Your task to perform on an android device: How much does a 3 bedroom apartment rent for in Seattle? Image 0: 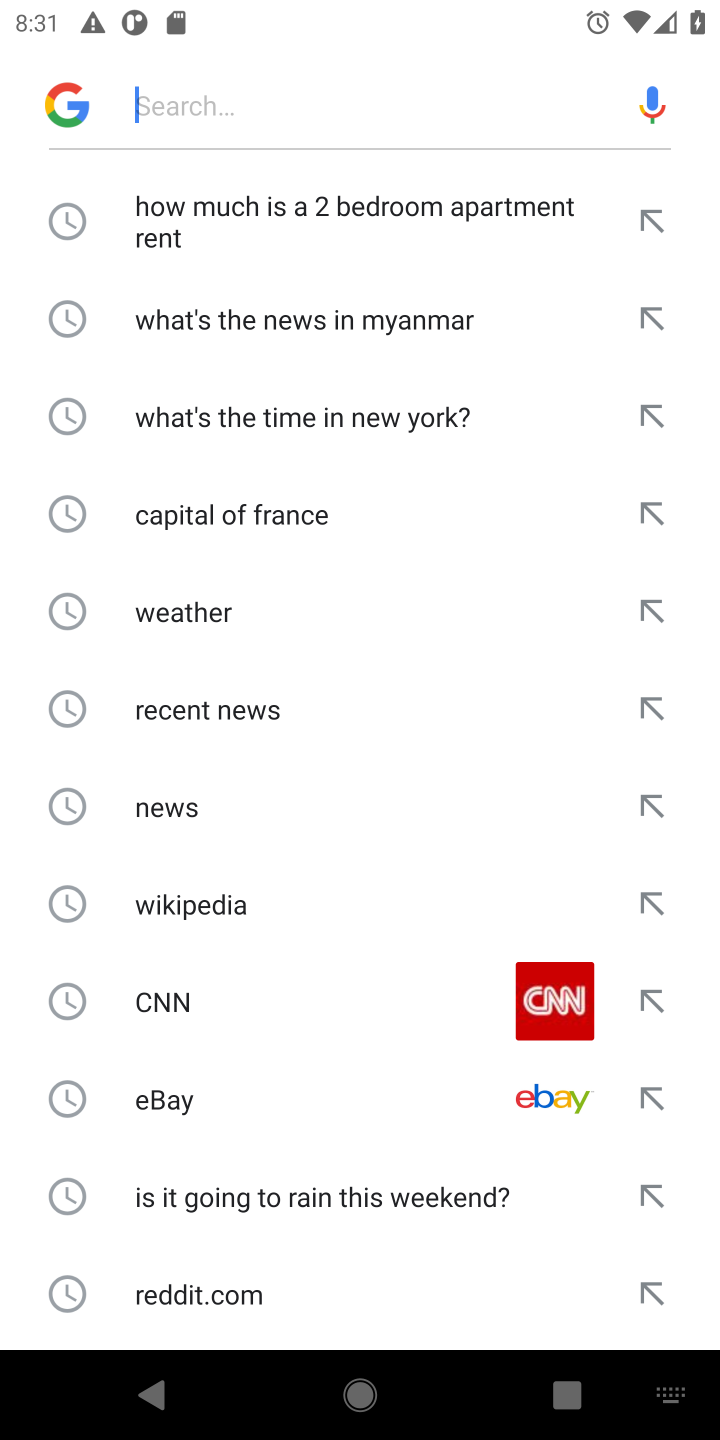
Step 0: type "How much does a 3 bedroom apartment rent for in Seattle?"
Your task to perform on an android device: How much does a 3 bedroom apartment rent for in Seattle? Image 1: 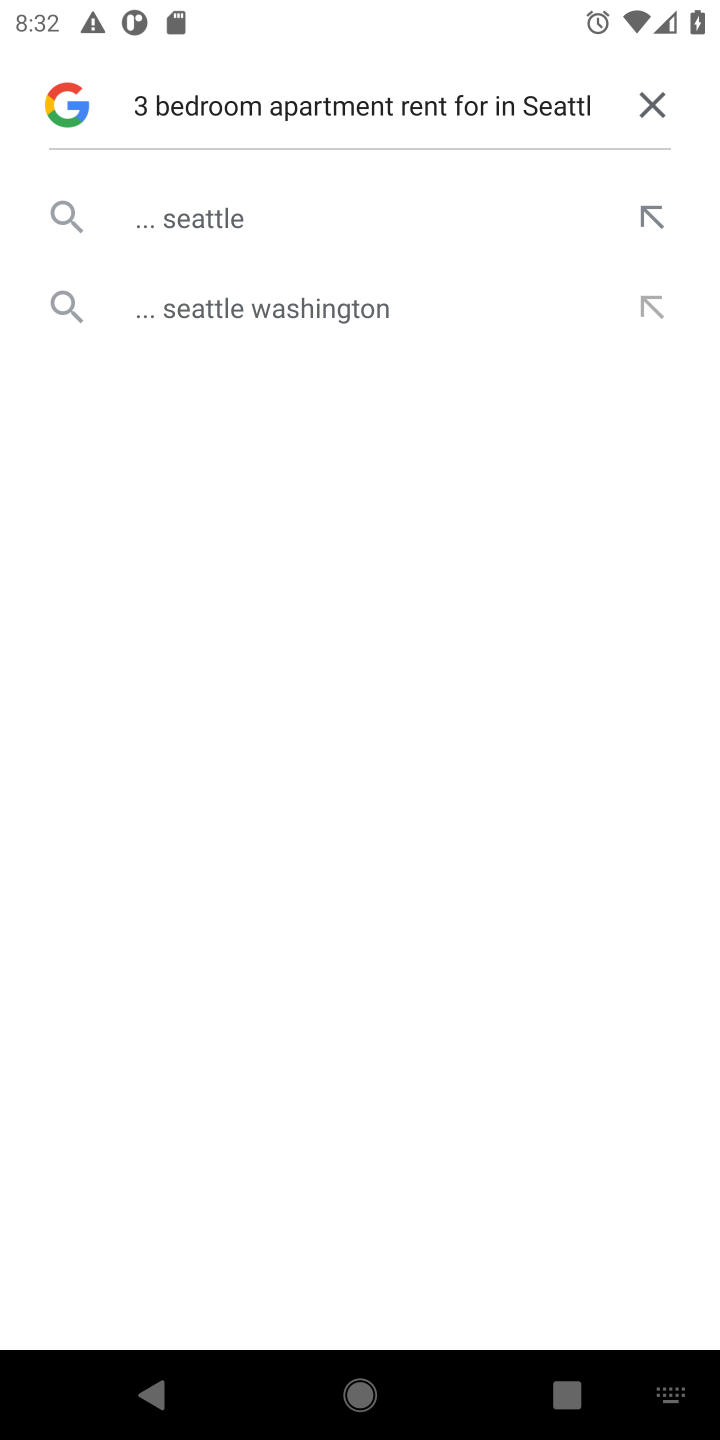
Step 1: click (157, 218)
Your task to perform on an android device: How much does a 3 bedroom apartment rent for in Seattle? Image 2: 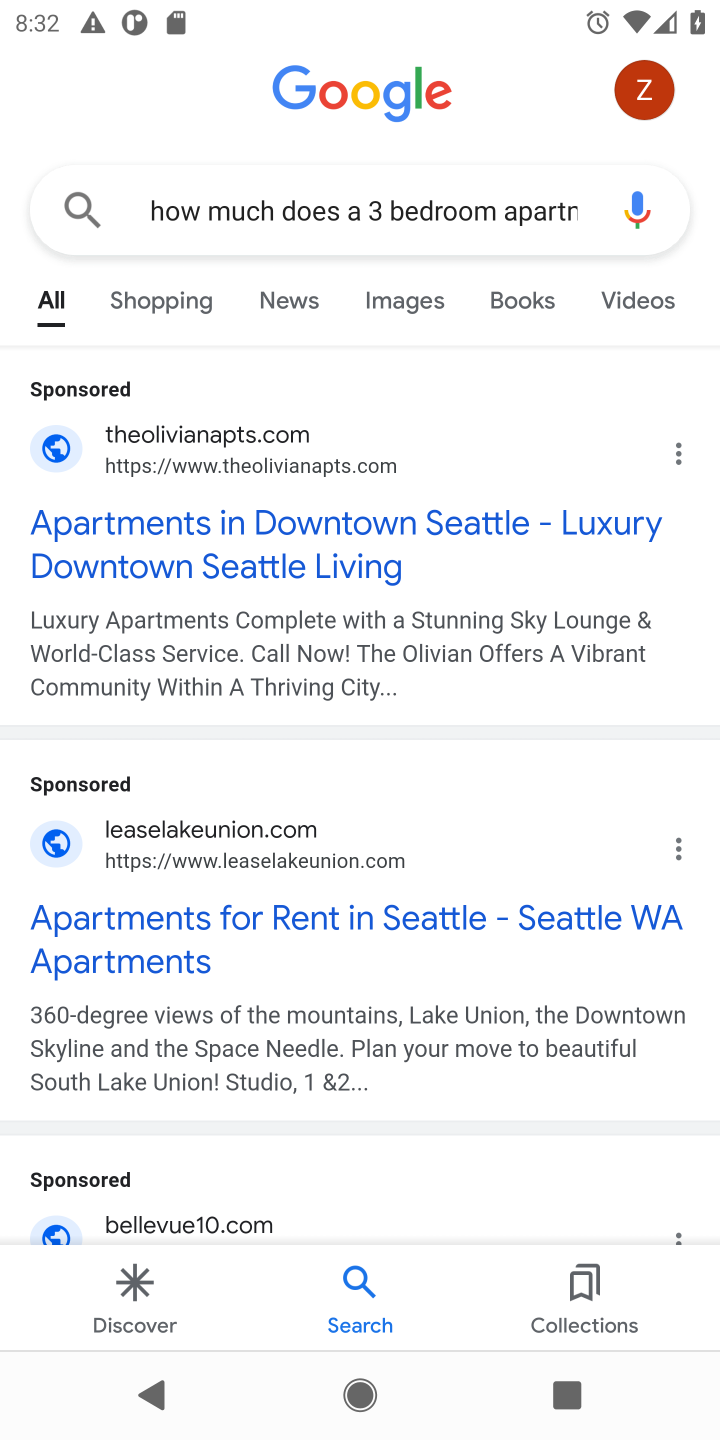
Step 2: click (454, 323)
Your task to perform on an android device: How much does a 3 bedroom apartment rent for in Seattle? Image 3: 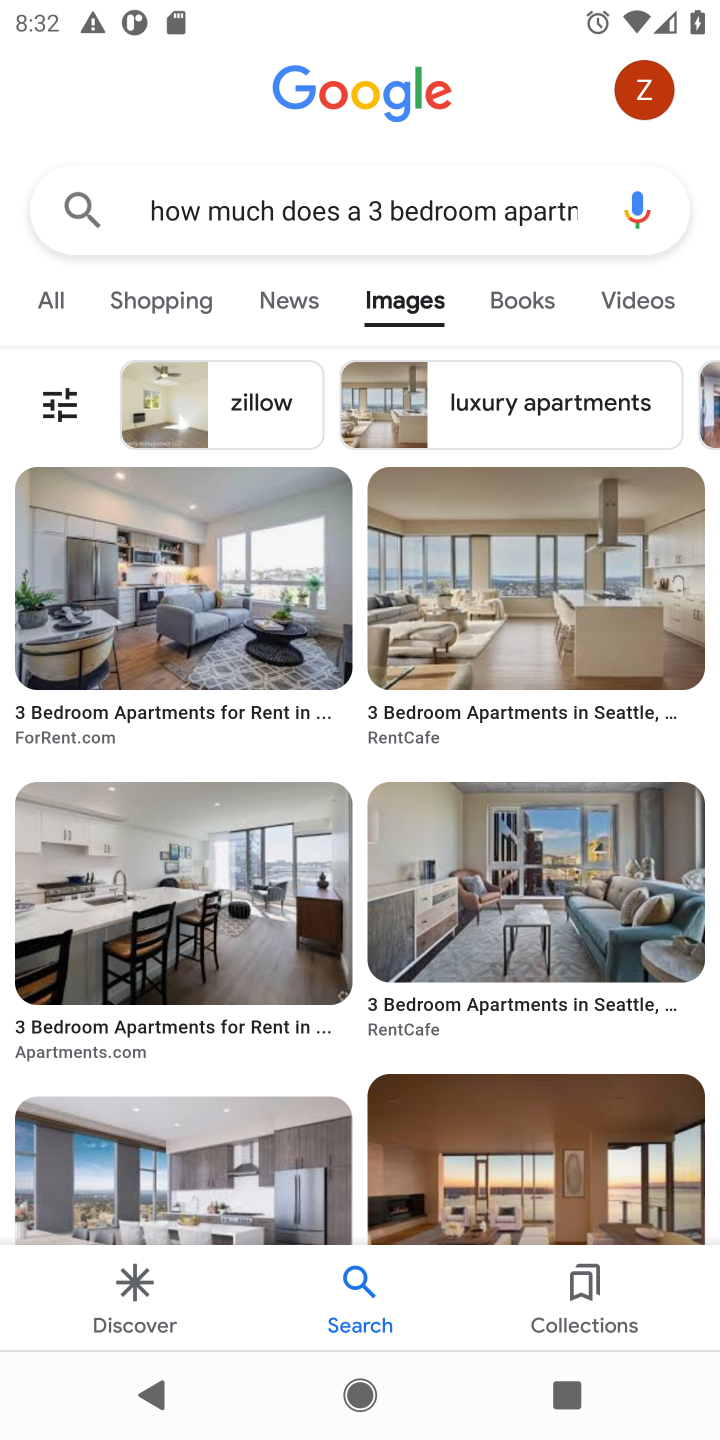
Step 3: click (46, 281)
Your task to perform on an android device: How much does a 3 bedroom apartment rent for in Seattle? Image 4: 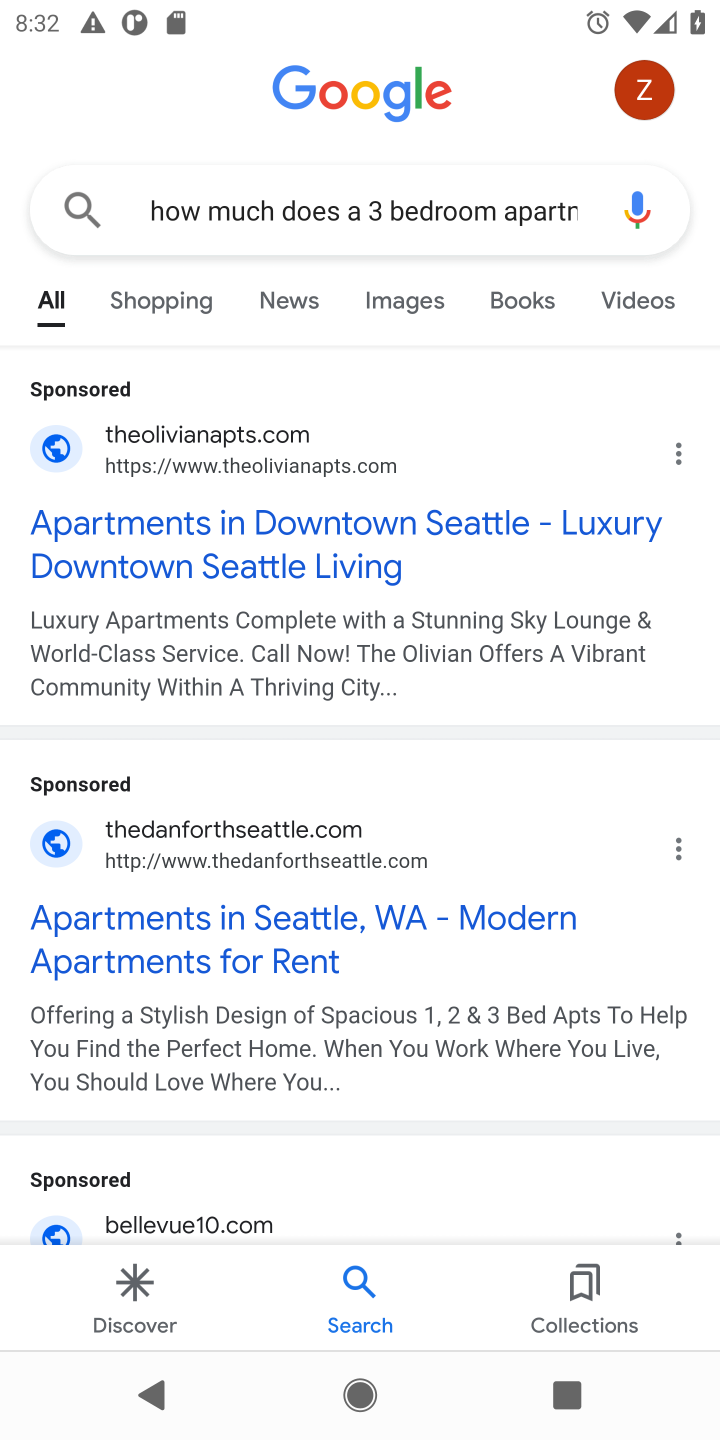
Step 4: drag from (274, 1096) to (343, 435)
Your task to perform on an android device: How much does a 3 bedroom apartment rent for in Seattle? Image 5: 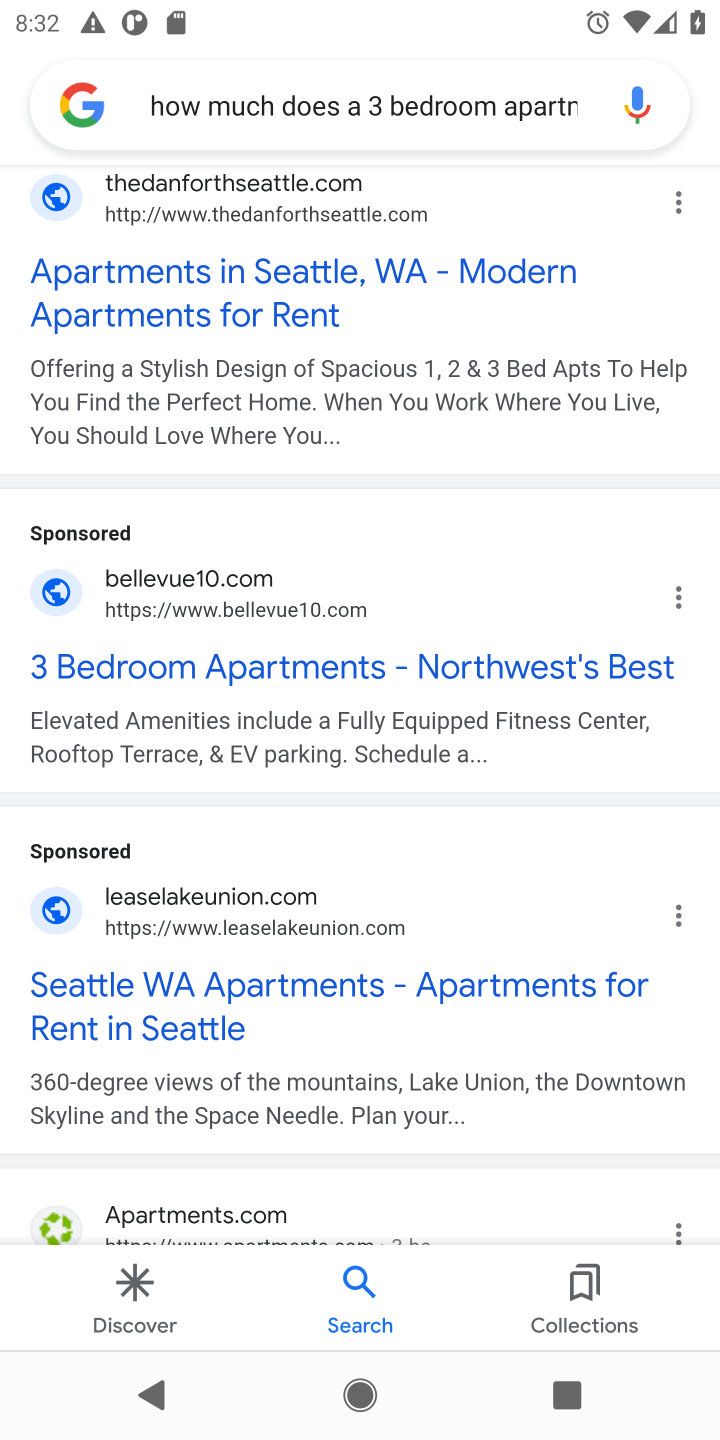
Step 5: drag from (270, 1146) to (418, 332)
Your task to perform on an android device: How much does a 3 bedroom apartment rent for in Seattle? Image 6: 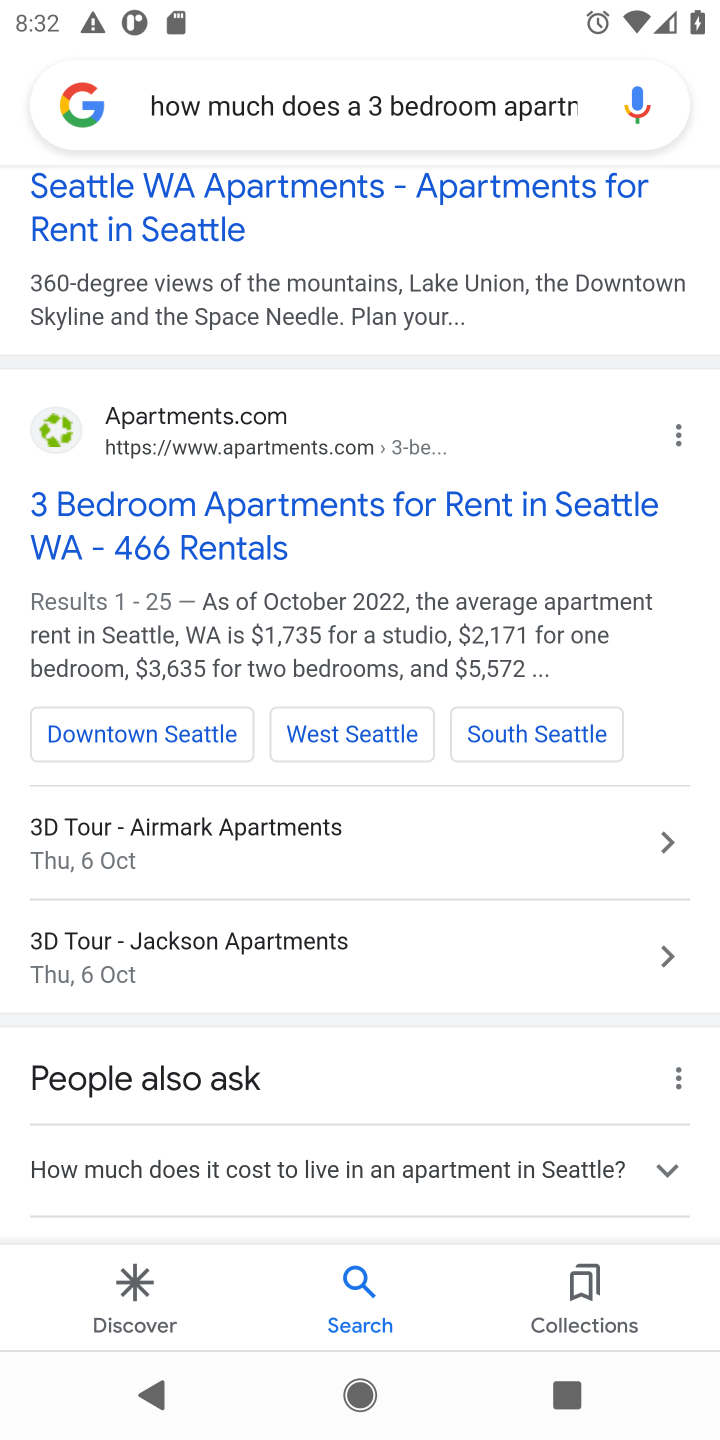
Step 6: click (272, 536)
Your task to perform on an android device: How much does a 3 bedroom apartment rent for in Seattle? Image 7: 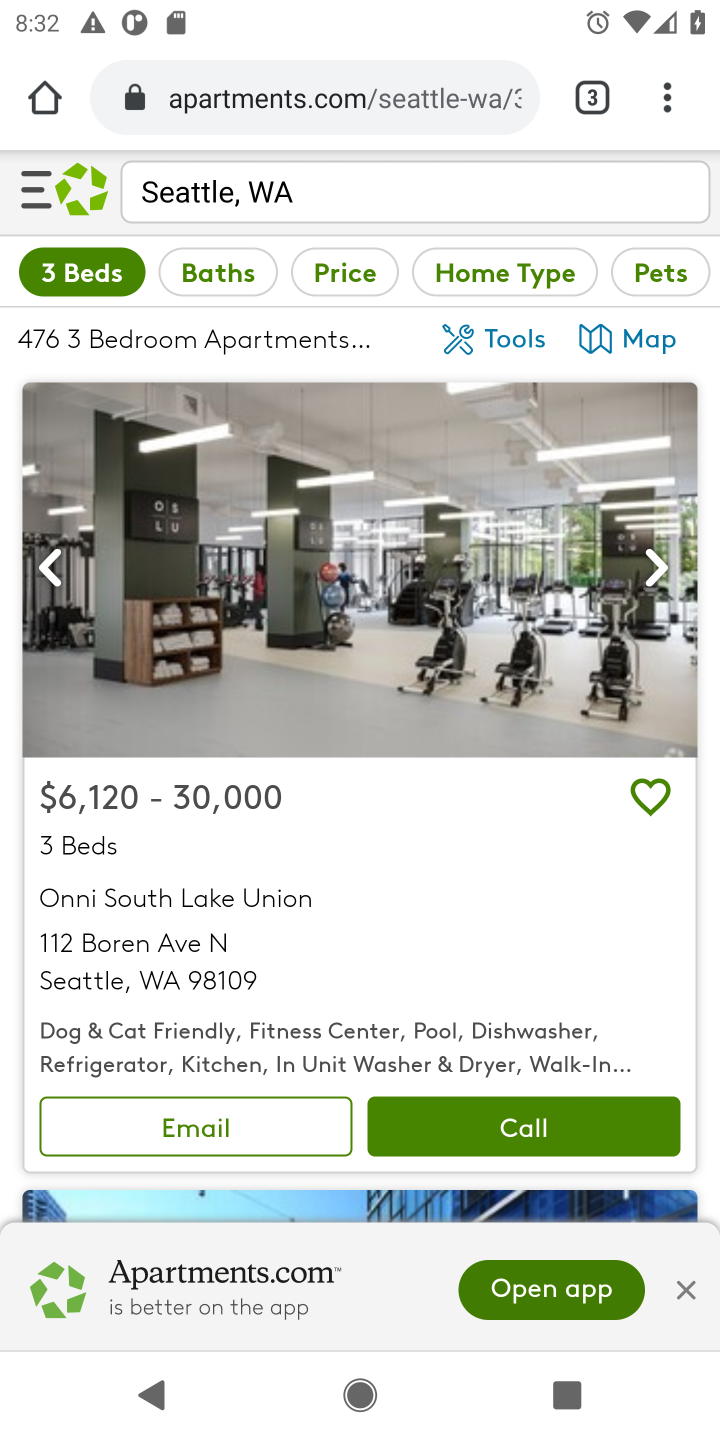
Step 7: click (658, 575)
Your task to perform on an android device: How much does a 3 bedroom apartment rent for in Seattle? Image 8: 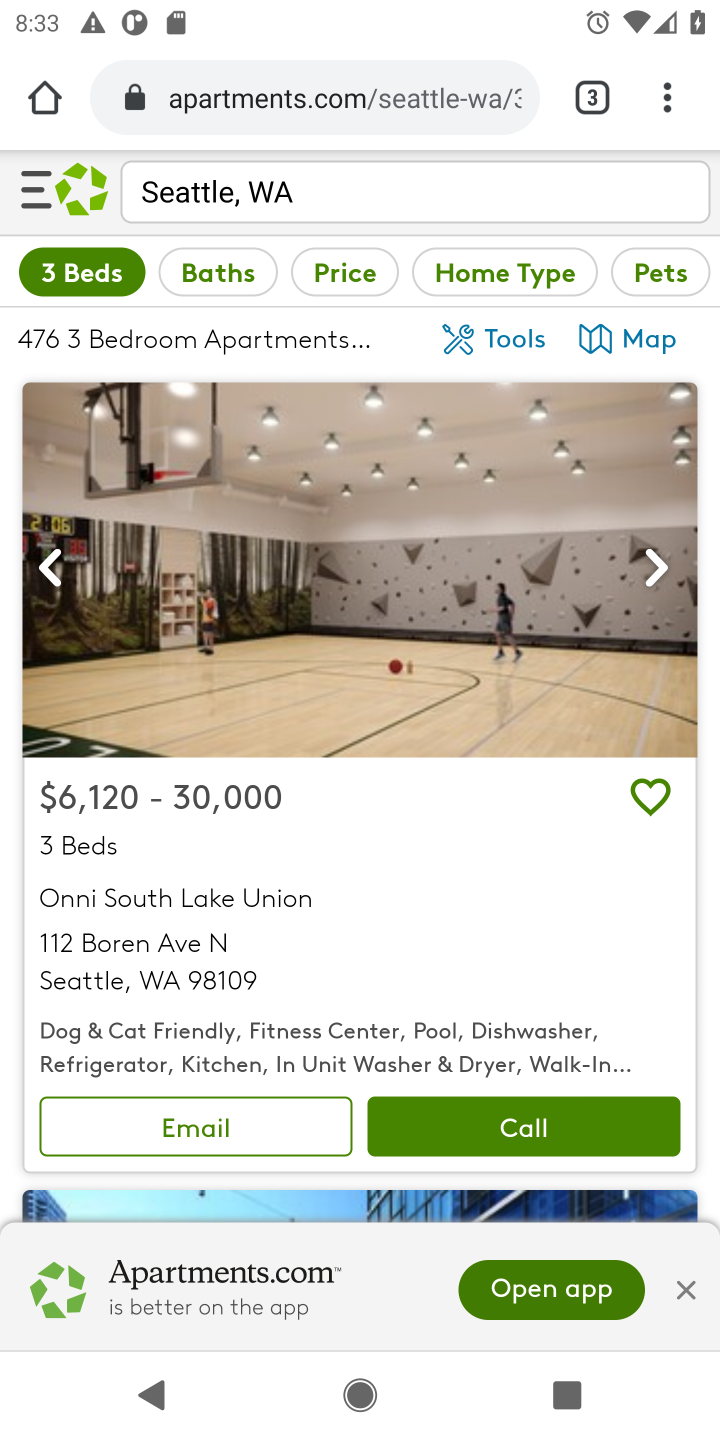
Step 8: click (658, 575)
Your task to perform on an android device: How much does a 3 bedroom apartment rent for in Seattle? Image 9: 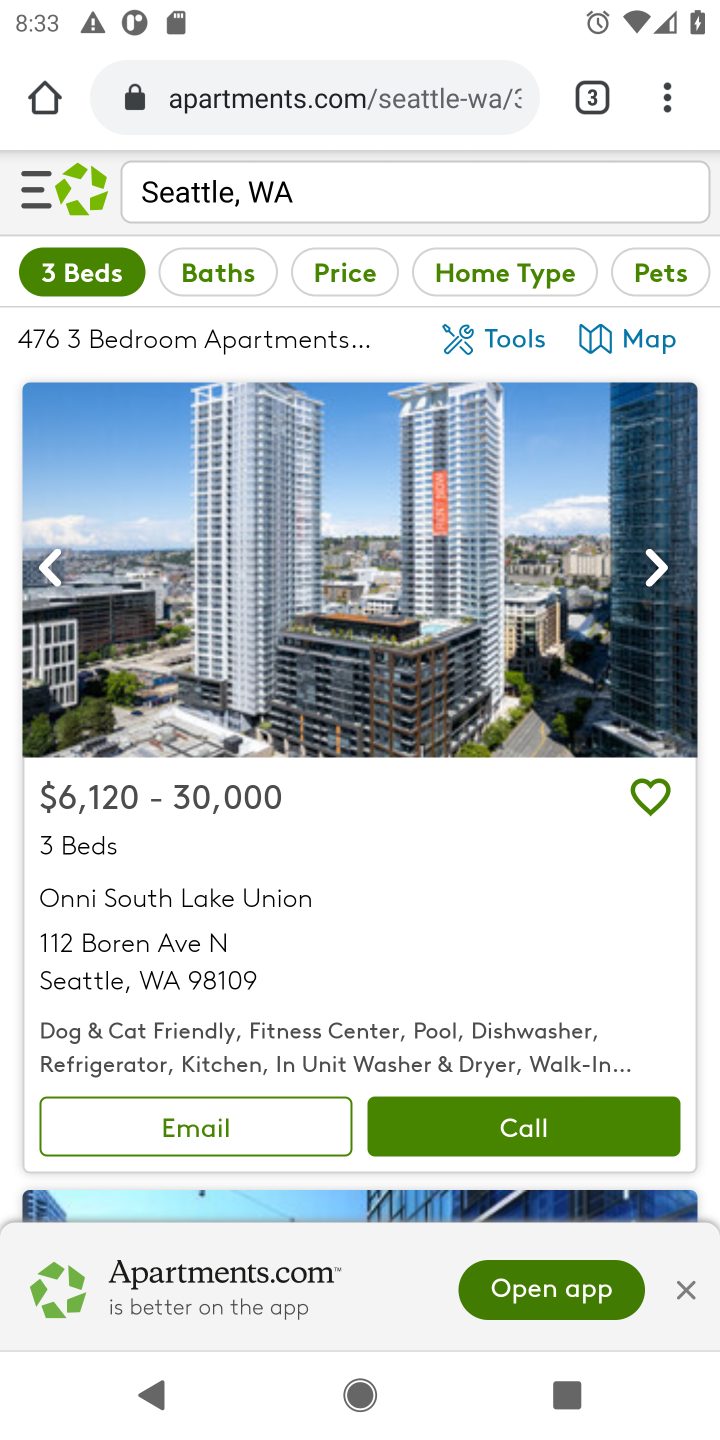
Step 9: click (658, 575)
Your task to perform on an android device: How much does a 3 bedroom apartment rent for in Seattle? Image 10: 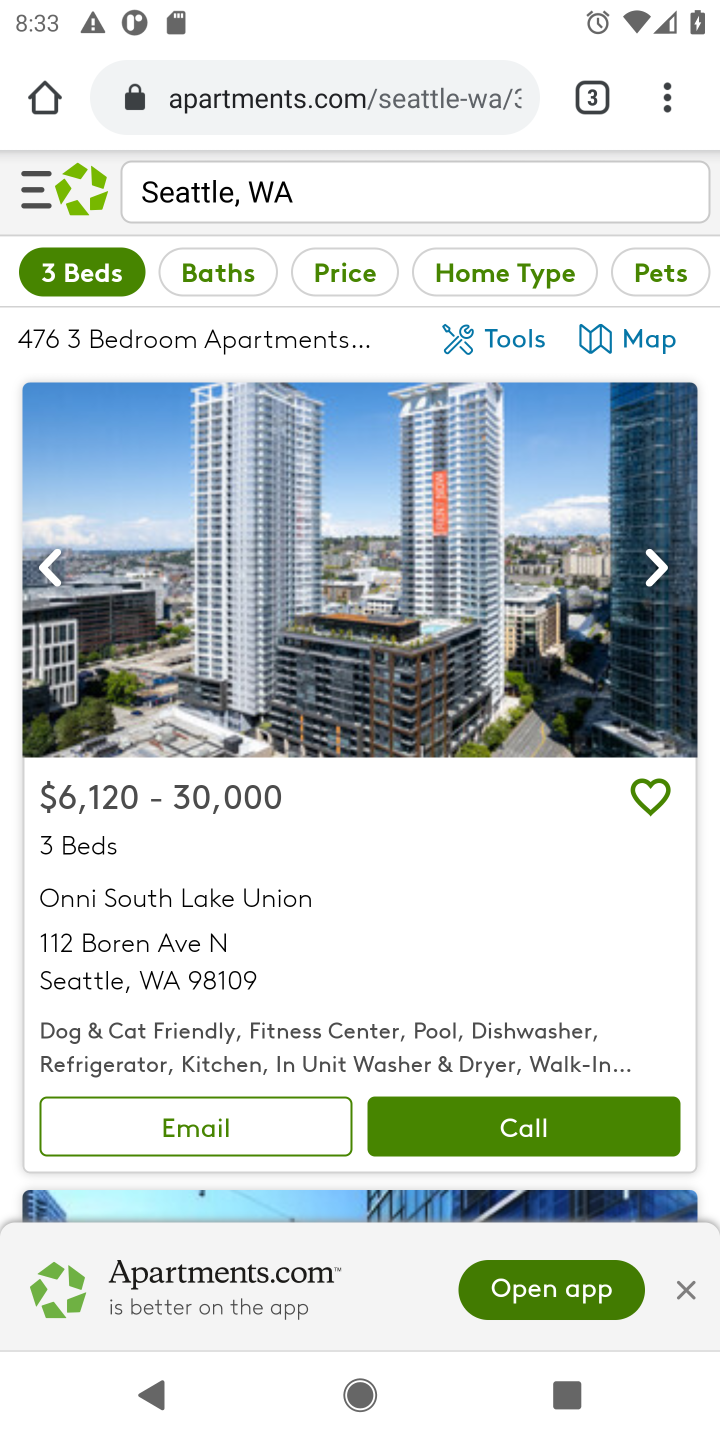
Step 10: task complete